Your task to perform on an android device: change the clock display to analog Image 0: 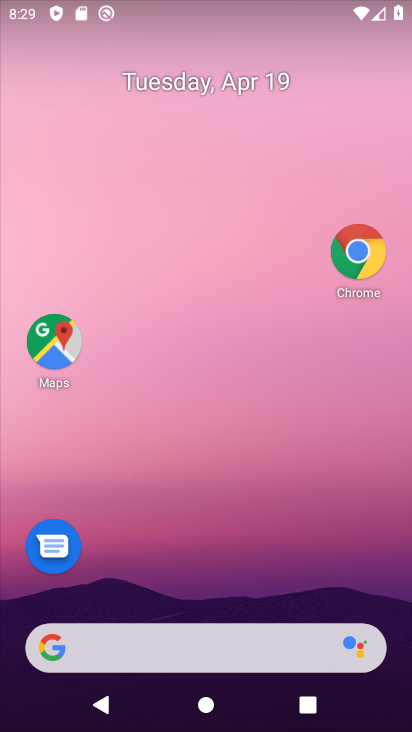
Step 0: drag from (0, 704) to (248, 160)
Your task to perform on an android device: change the clock display to analog Image 1: 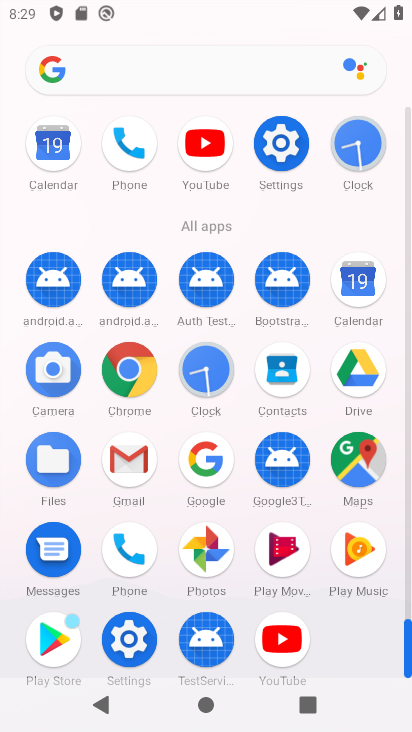
Step 1: click (350, 147)
Your task to perform on an android device: change the clock display to analog Image 2: 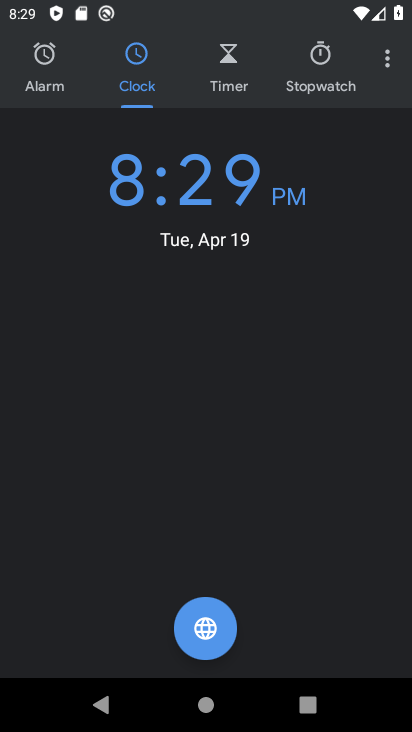
Step 2: click (383, 56)
Your task to perform on an android device: change the clock display to analog Image 3: 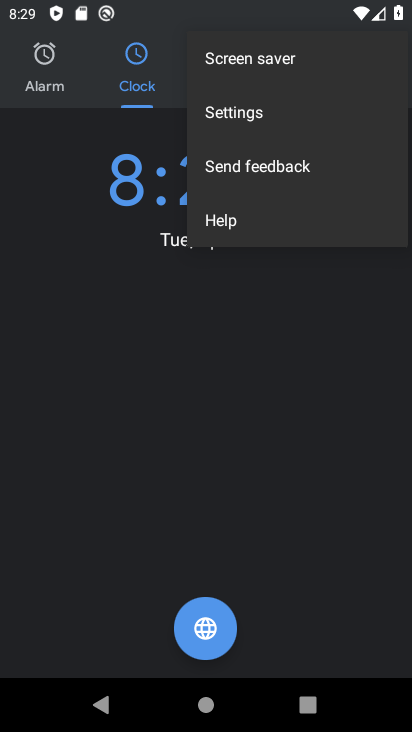
Step 3: click (210, 103)
Your task to perform on an android device: change the clock display to analog Image 4: 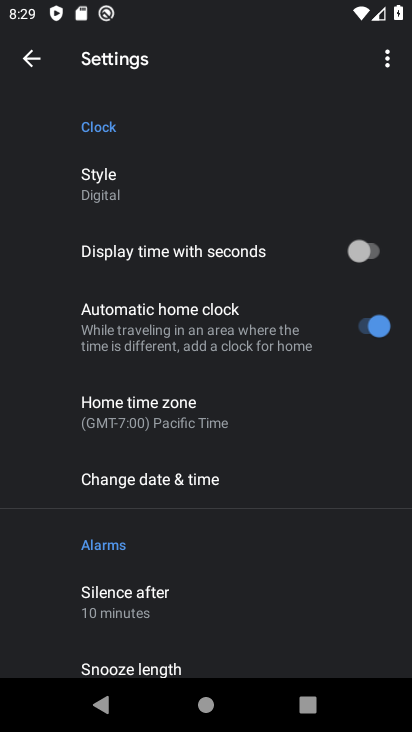
Step 4: click (183, 179)
Your task to perform on an android device: change the clock display to analog Image 5: 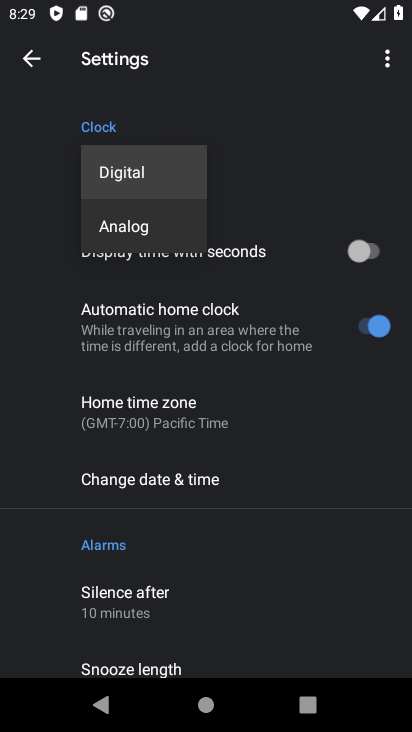
Step 5: click (168, 217)
Your task to perform on an android device: change the clock display to analog Image 6: 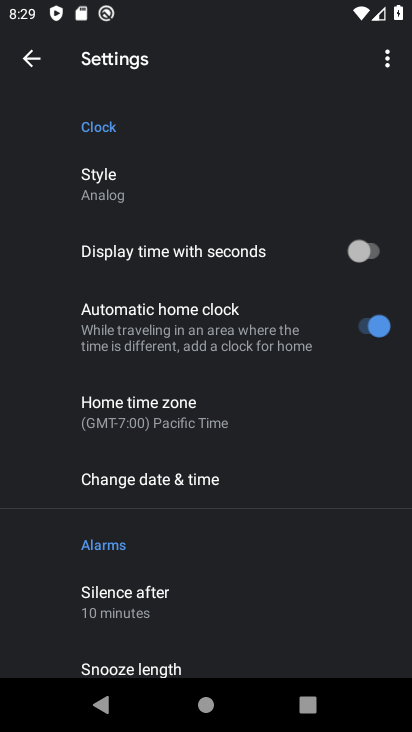
Step 6: task complete